Your task to perform on an android device: change notification settings in the gmail app Image 0: 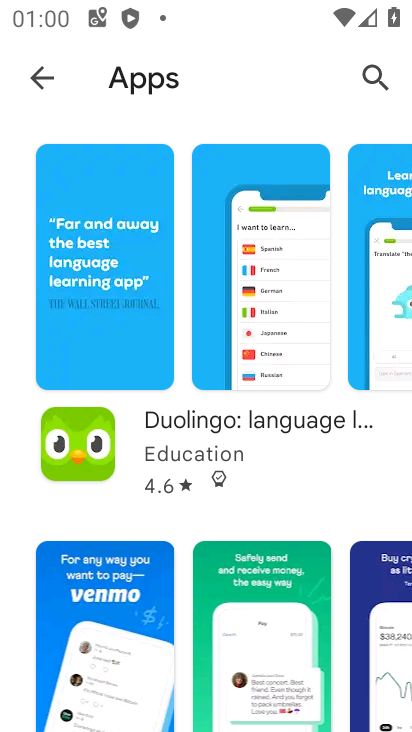
Step 0: press home button
Your task to perform on an android device: change notification settings in the gmail app Image 1: 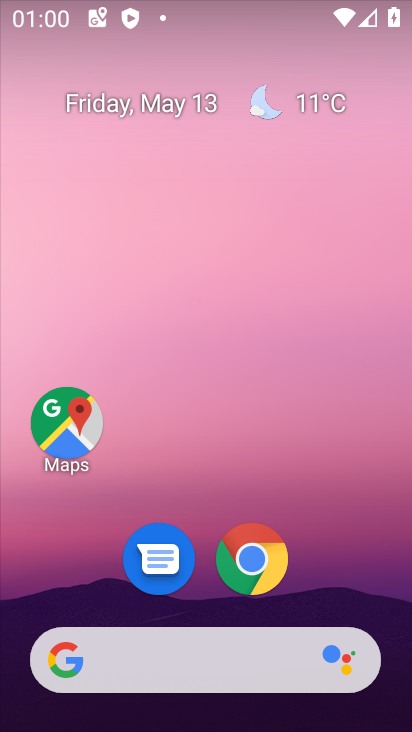
Step 1: drag from (57, 537) to (116, 122)
Your task to perform on an android device: change notification settings in the gmail app Image 2: 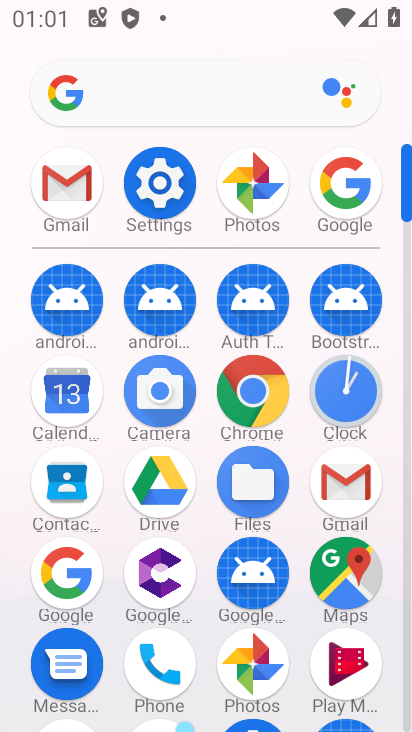
Step 2: click (53, 182)
Your task to perform on an android device: change notification settings in the gmail app Image 3: 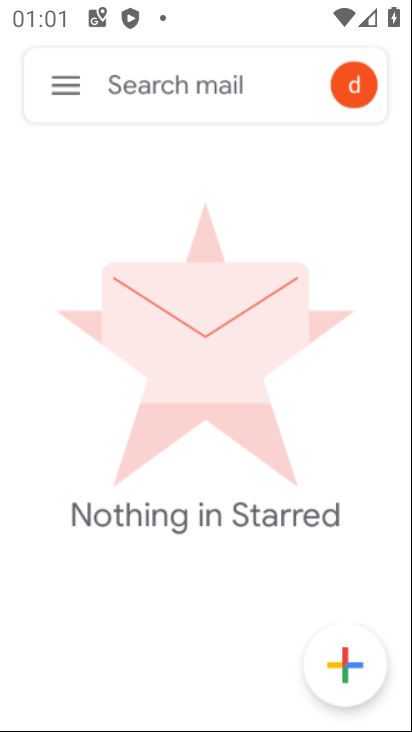
Step 3: click (69, 90)
Your task to perform on an android device: change notification settings in the gmail app Image 4: 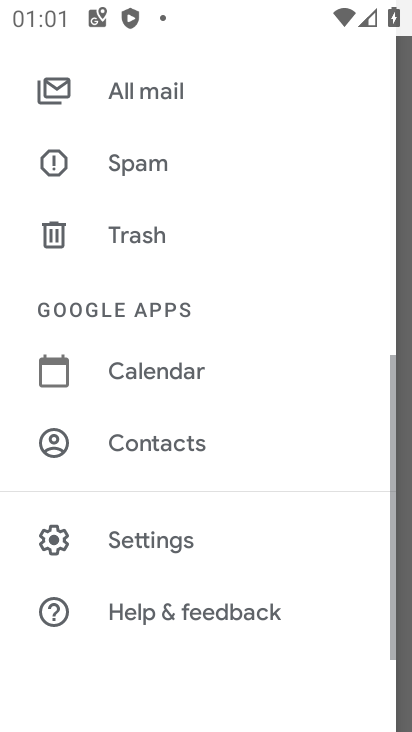
Step 4: click (133, 551)
Your task to perform on an android device: change notification settings in the gmail app Image 5: 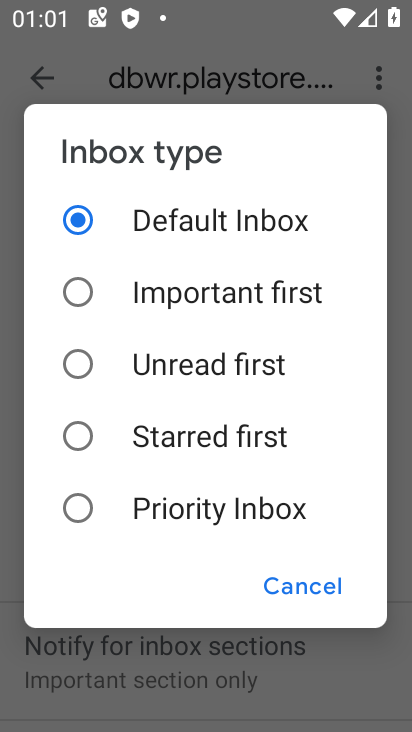
Step 5: click (286, 573)
Your task to perform on an android device: change notification settings in the gmail app Image 6: 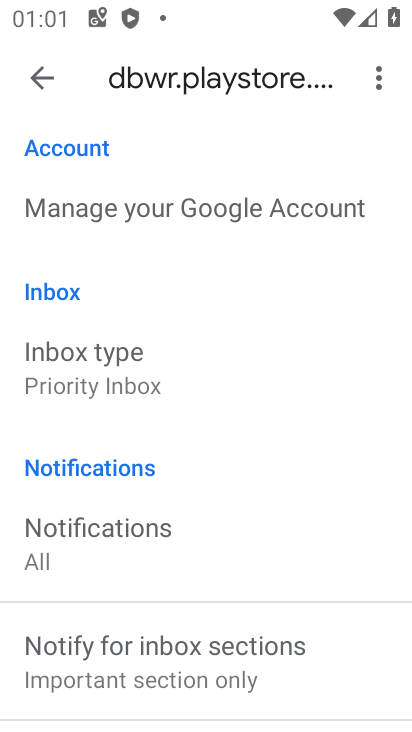
Step 6: click (104, 530)
Your task to perform on an android device: change notification settings in the gmail app Image 7: 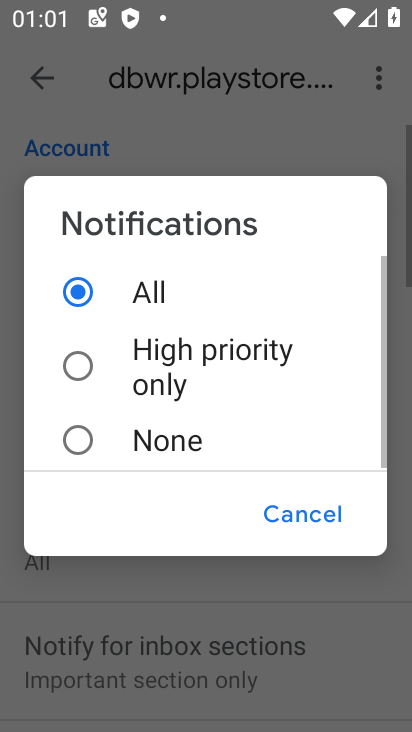
Step 7: click (77, 359)
Your task to perform on an android device: change notification settings in the gmail app Image 8: 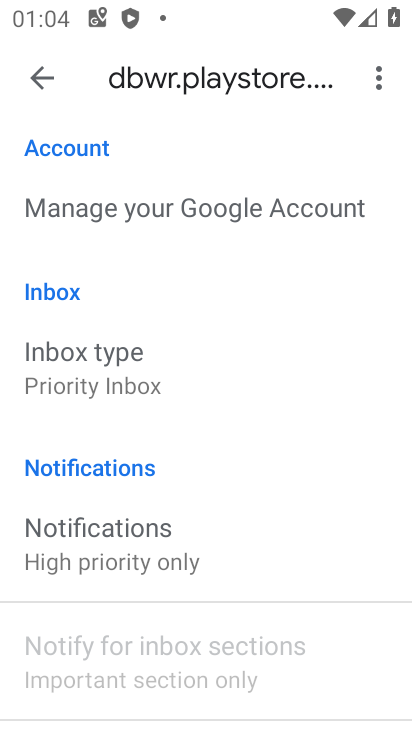
Step 8: task complete